Your task to perform on an android device: snooze an email in the gmail app Image 0: 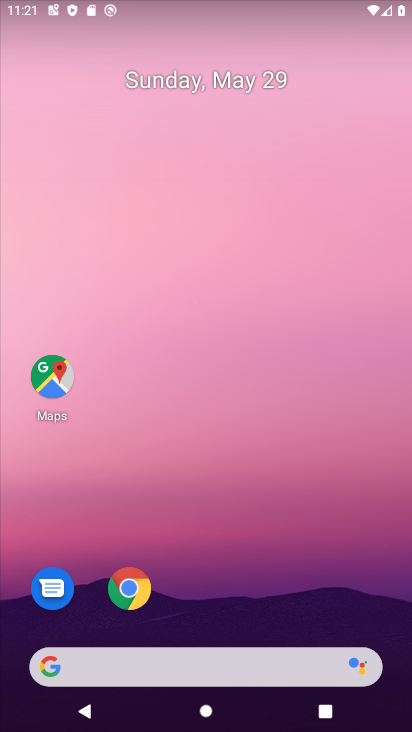
Step 0: drag from (370, 572) to (411, 297)
Your task to perform on an android device: snooze an email in the gmail app Image 1: 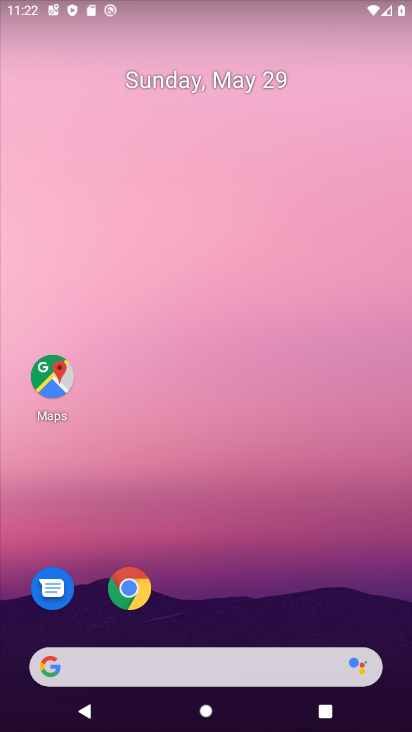
Step 1: drag from (304, 499) to (374, 8)
Your task to perform on an android device: snooze an email in the gmail app Image 2: 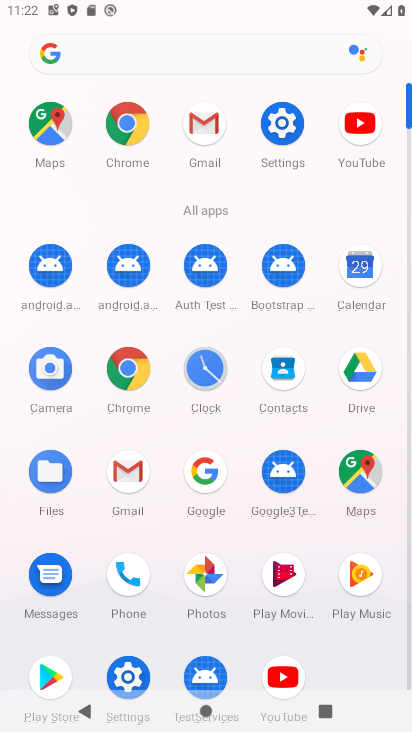
Step 2: click (210, 127)
Your task to perform on an android device: snooze an email in the gmail app Image 3: 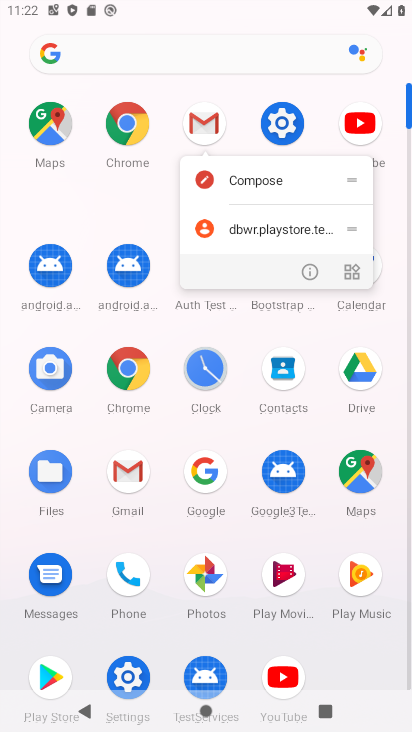
Step 3: click (210, 125)
Your task to perform on an android device: snooze an email in the gmail app Image 4: 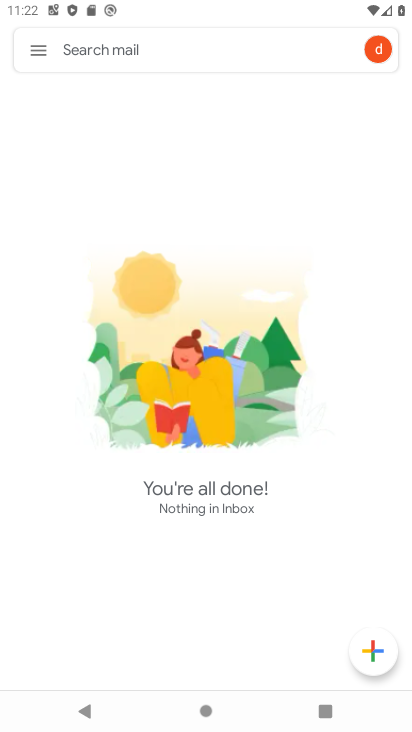
Step 4: click (31, 62)
Your task to perform on an android device: snooze an email in the gmail app Image 5: 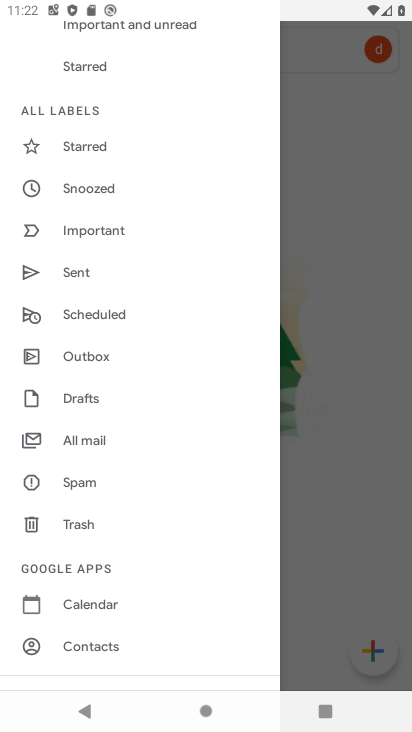
Step 5: click (326, 306)
Your task to perform on an android device: snooze an email in the gmail app Image 6: 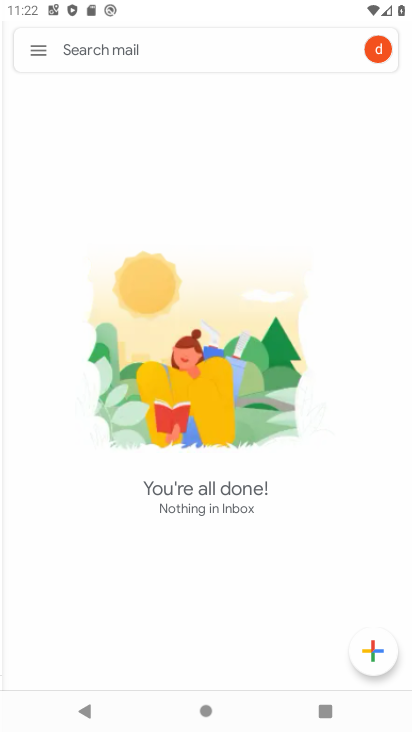
Step 6: click (326, 306)
Your task to perform on an android device: snooze an email in the gmail app Image 7: 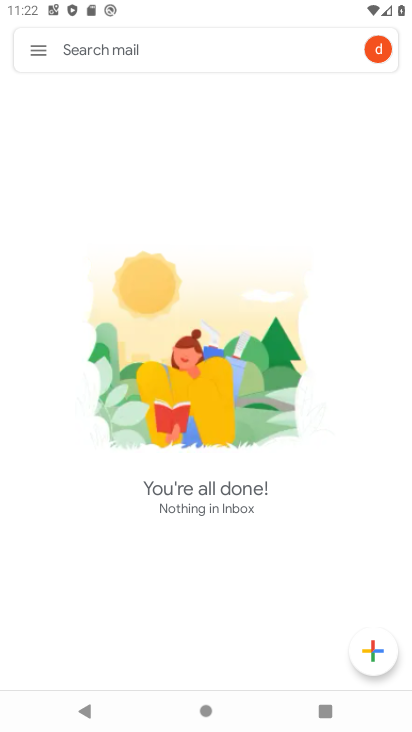
Step 7: task complete